Your task to perform on an android device: check android version Image 0: 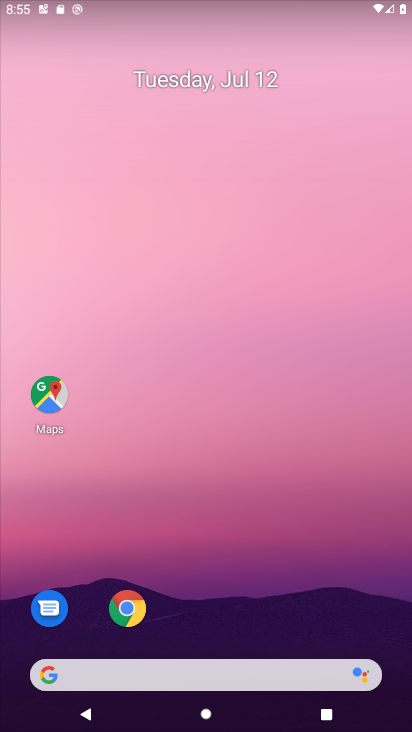
Step 0: drag from (116, 673) to (235, 210)
Your task to perform on an android device: check android version Image 1: 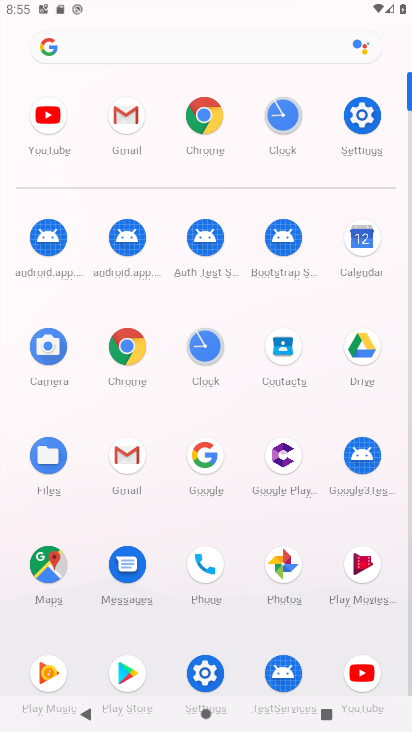
Step 1: click (354, 123)
Your task to perform on an android device: check android version Image 2: 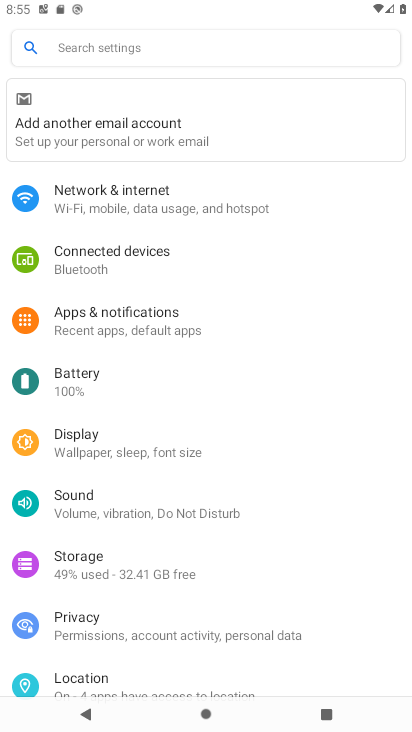
Step 2: drag from (219, 630) to (280, 89)
Your task to perform on an android device: check android version Image 3: 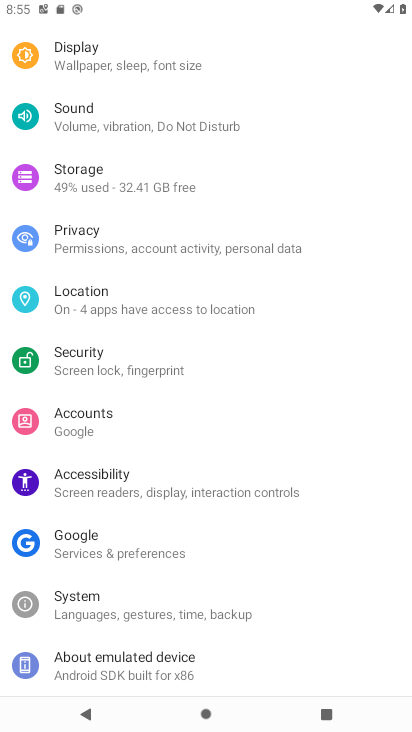
Step 3: drag from (202, 666) to (311, 78)
Your task to perform on an android device: check android version Image 4: 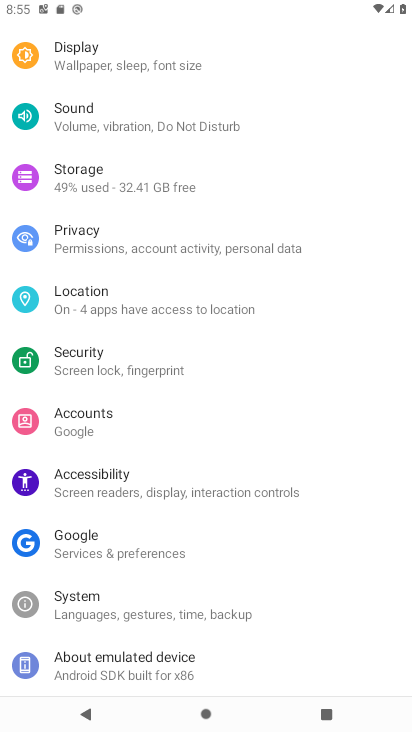
Step 4: click (99, 669)
Your task to perform on an android device: check android version Image 5: 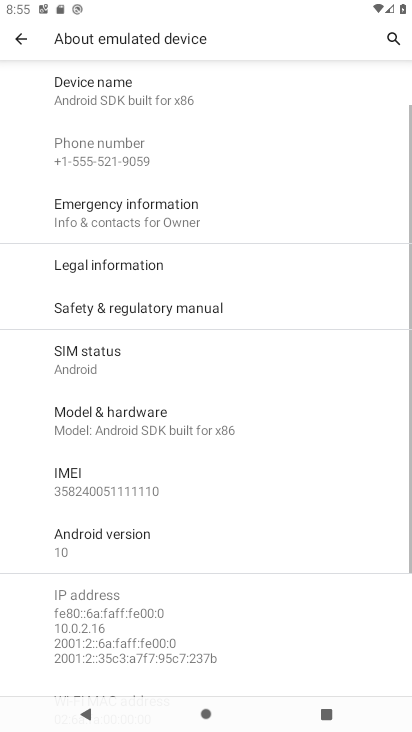
Step 5: click (98, 536)
Your task to perform on an android device: check android version Image 6: 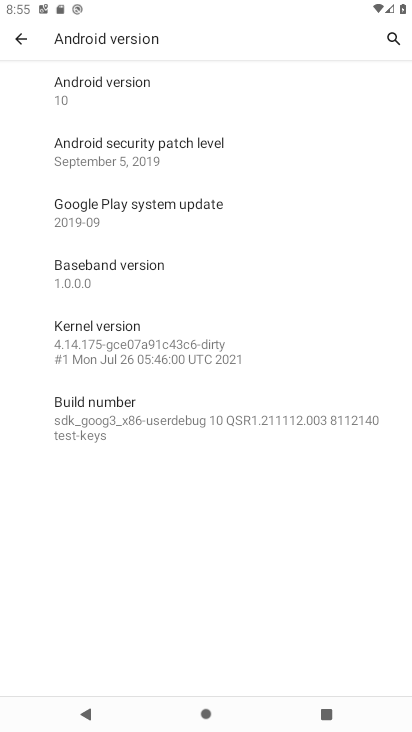
Step 6: task complete